Your task to perform on an android device: change notifications settings Image 0: 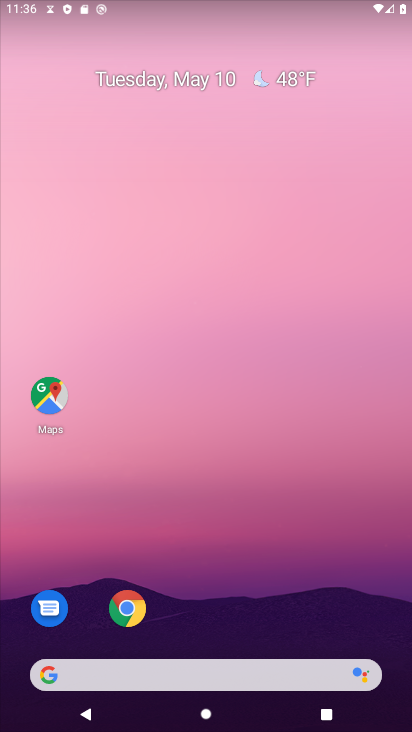
Step 0: drag from (261, 599) to (277, 237)
Your task to perform on an android device: change notifications settings Image 1: 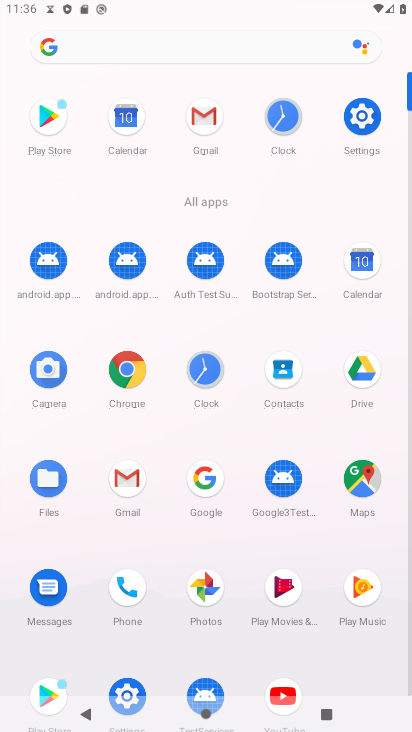
Step 1: click (376, 118)
Your task to perform on an android device: change notifications settings Image 2: 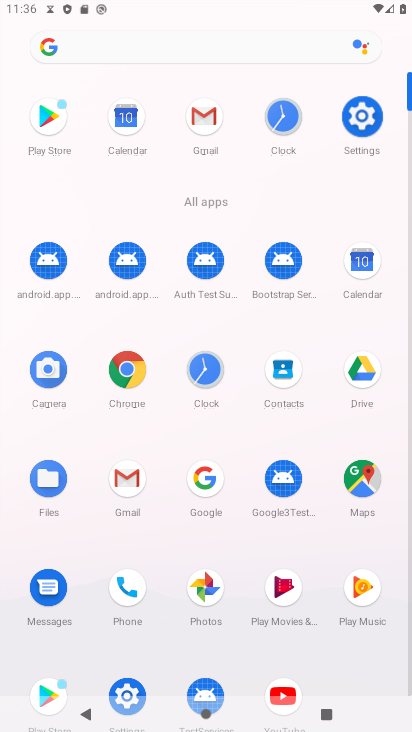
Step 2: click (376, 118)
Your task to perform on an android device: change notifications settings Image 3: 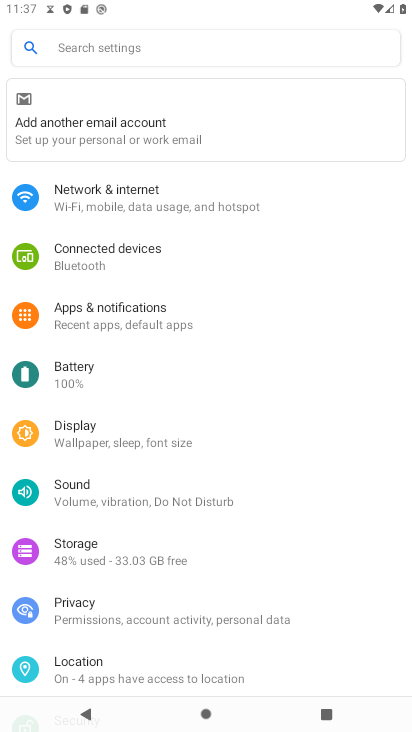
Step 3: click (230, 316)
Your task to perform on an android device: change notifications settings Image 4: 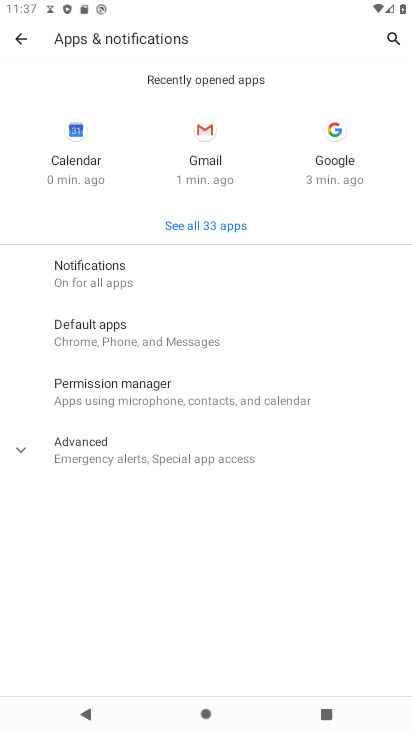
Step 4: click (146, 277)
Your task to perform on an android device: change notifications settings Image 5: 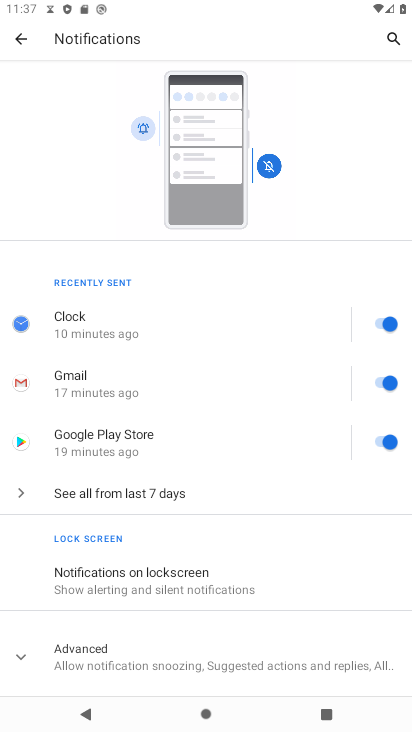
Step 5: click (391, 446)
Your task to perform on an android device: change notifications settings Image 6: 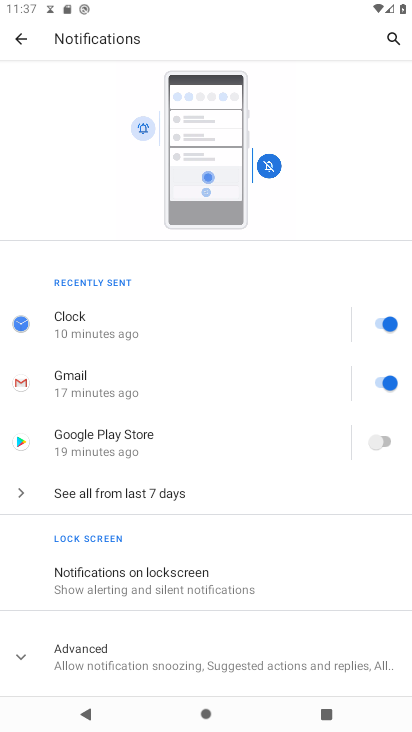
Step 6: click (392, 378)
Your task to perform on an android device: change notifications settings Image 7: 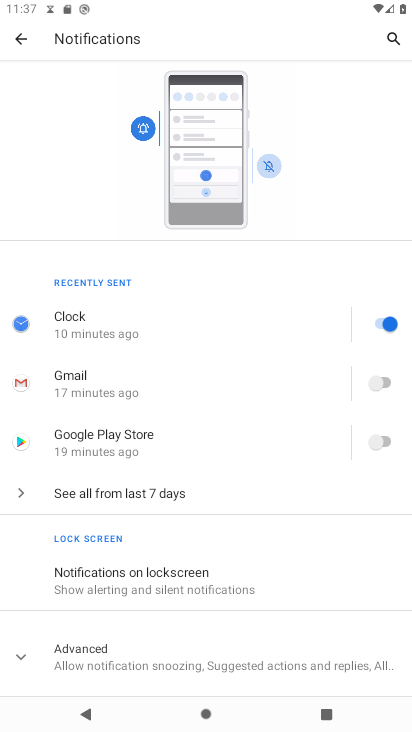
Step 7: click (389, 326)
Your task to perform on an android device: change notifications settings Image 8: 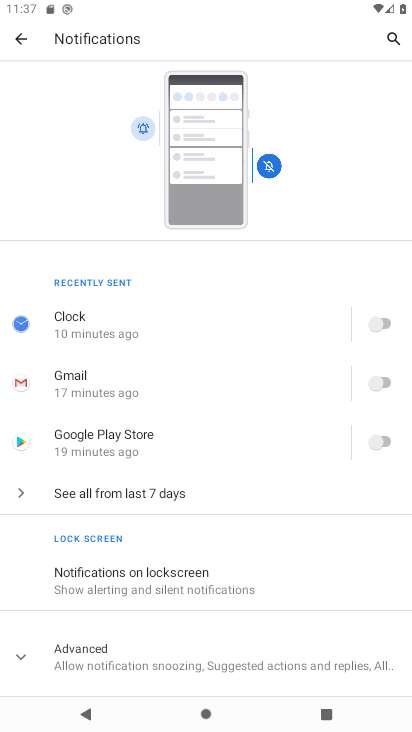
Step 8: task complete